Your task to perform on an android device: turn smart compose on in the gmail app Image 0: 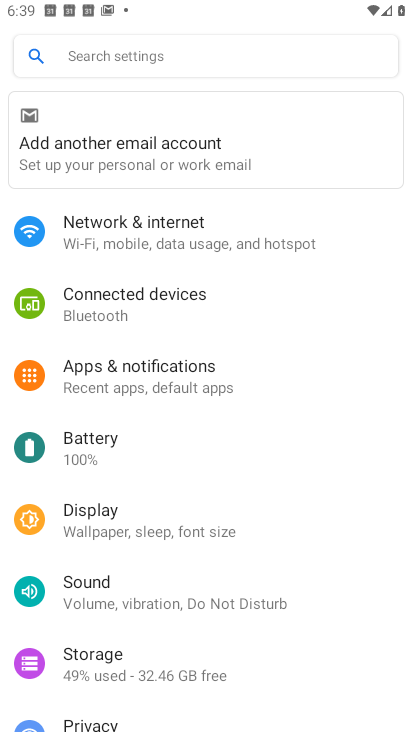
Step 0: press home button
Your task to perform on an android device: turn smart compose on in the gmail app Image 1: 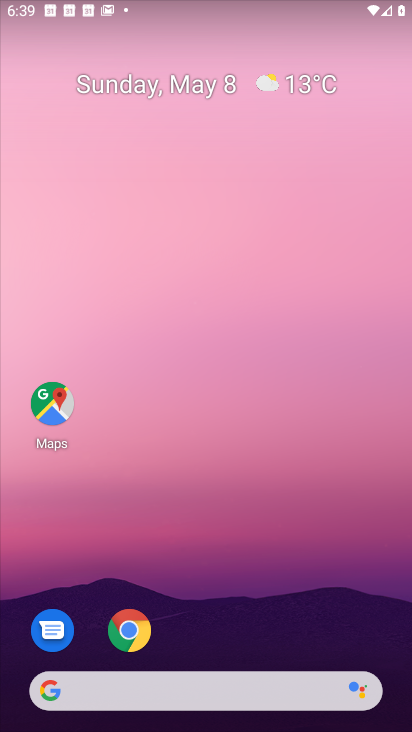
Step 1: drag from (219, 533) to (134, 80)
Your task to perform on an android device: turn smart compose on in the gmail app Image 2: 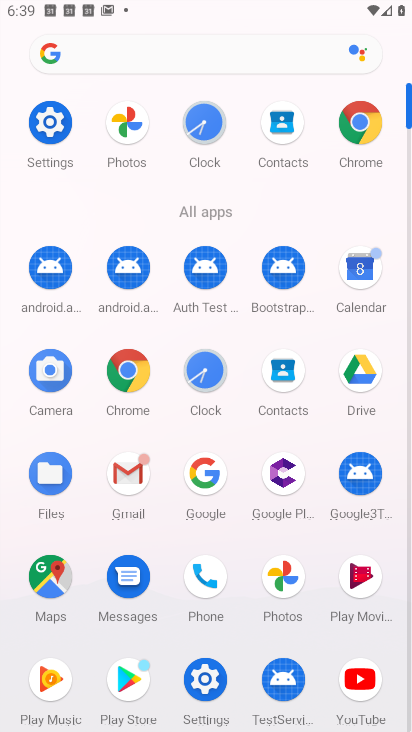
Step 2: click (135, 471)
Your task to perform on an android device: turn smart compose on in the gmail app Image 3: 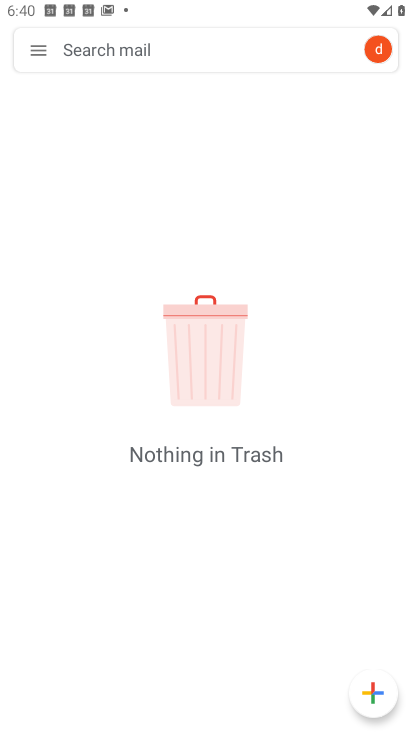
Step 3: click (41, 49)
Your task to perform on an android device: turn smart compose on in the gmail app Image 4: 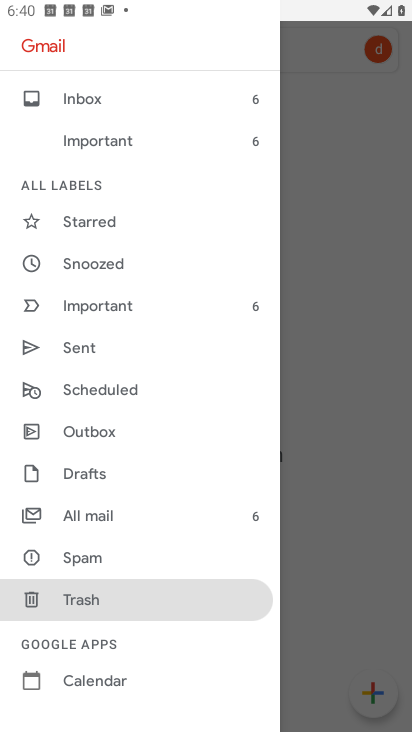
Step 4: drag from (142, 589) to (3, 0)
Your task to perform on an android device: turn smart compose on in the gmail app Image 5: 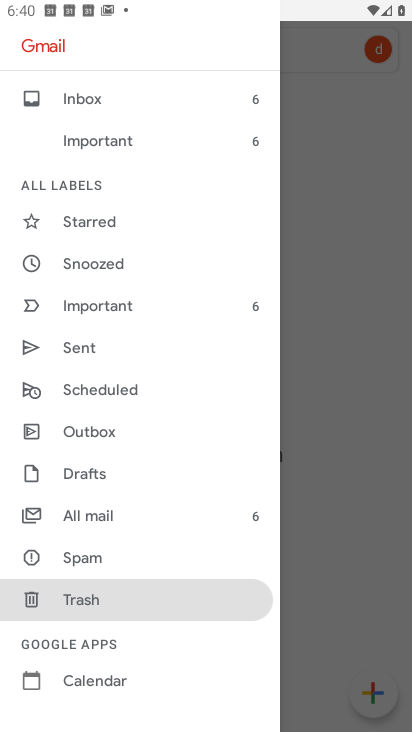
Step 5: drag from (158, 518) to (158, 149)
Your task to perform on an android device: turn smart compose on in the gmail app Image 6: 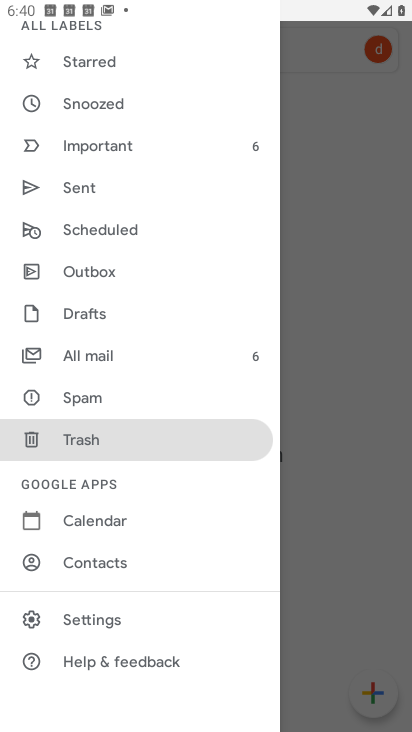
Step 6: click (79, 618)
Your task to perform on an android device: turn smart compose on in the gmail app Image 7: 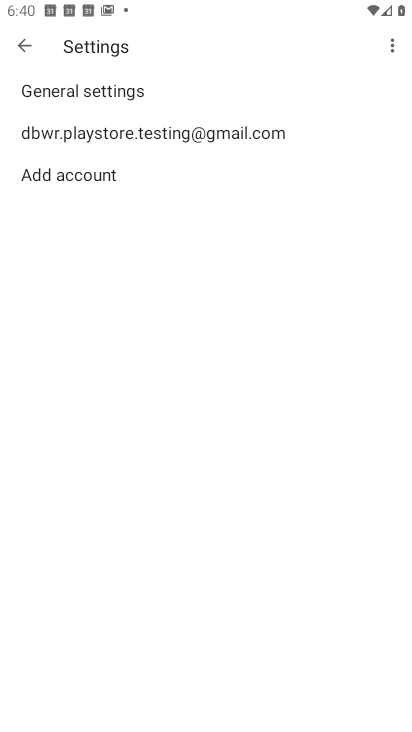
Step 7: click (89, 136)
Your task to perform on an android device: turn smart compose on in the gmail app Image 8: 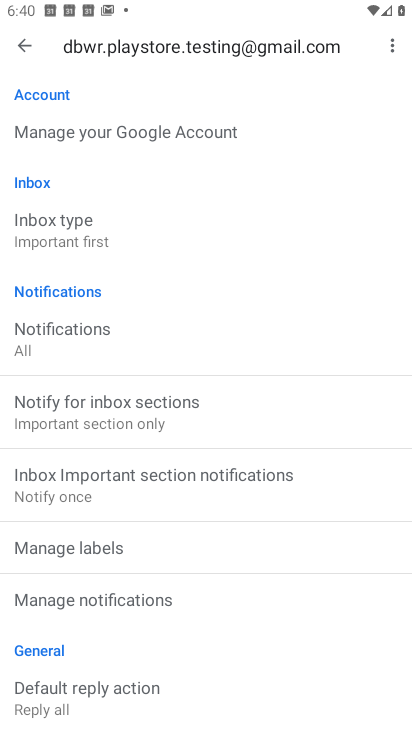
Step 8: task complete